Your task to perform on an android device: Search for vegetarian restaurants on Maps Image 0: 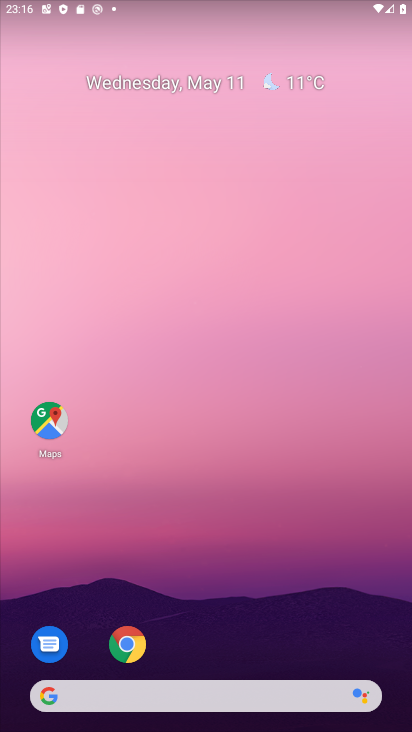
Step 0: press home button
Your task to perform on an android device: Search for vegetarian restaurants on Maps Image 1: 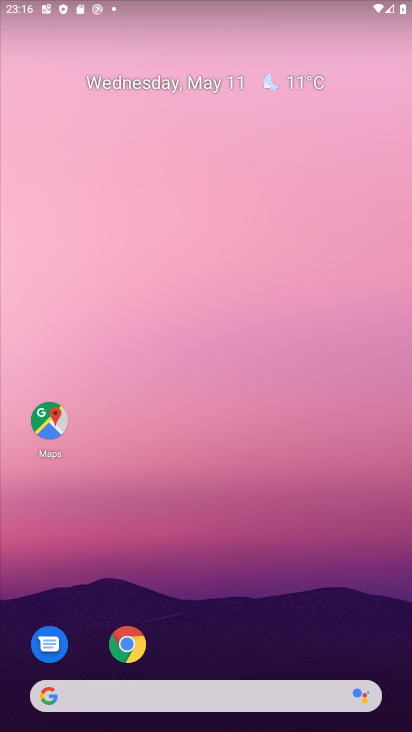
Step 1: drag from (220, 660) to (218, 138)
Your task to perform on an android device: Search for vegetarian restaurants on Maps Image 2: 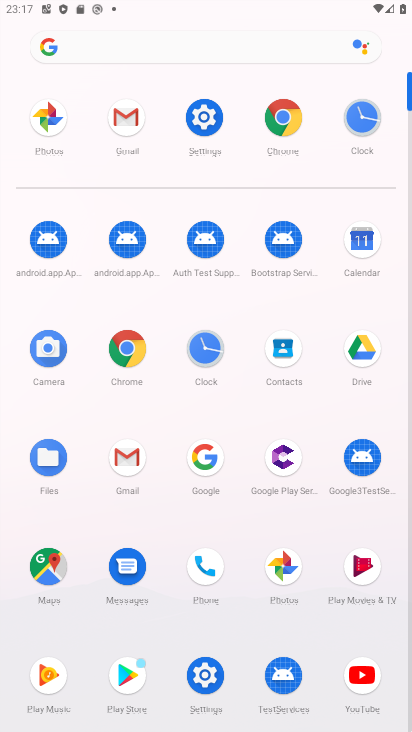
Step 2: click (50, 559)
Your task to perform on an android device: Search for vegetarian restaurants on Maps Image 3: 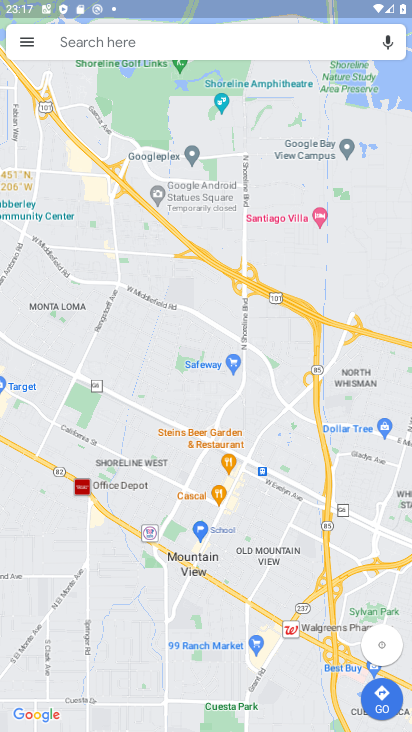
Step 3: click (101, 33)
Your task to perform on an android device: Search for vegetarian restaurants on Maps Image 4: 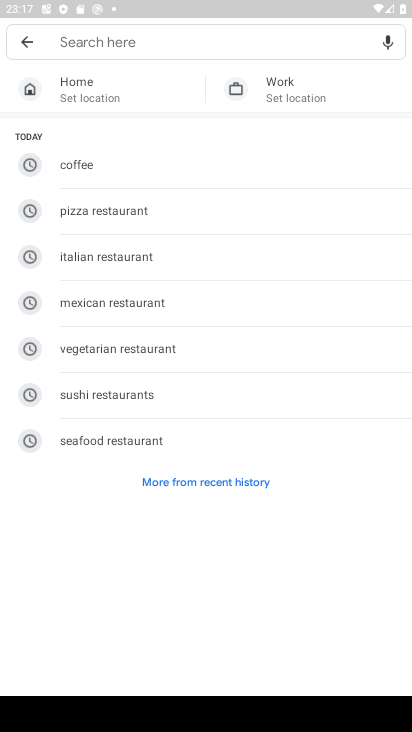
Step 4: click (132, 351)
Your task to perform on an android device: Search for vegetarian restaurants on Maps Image 5: 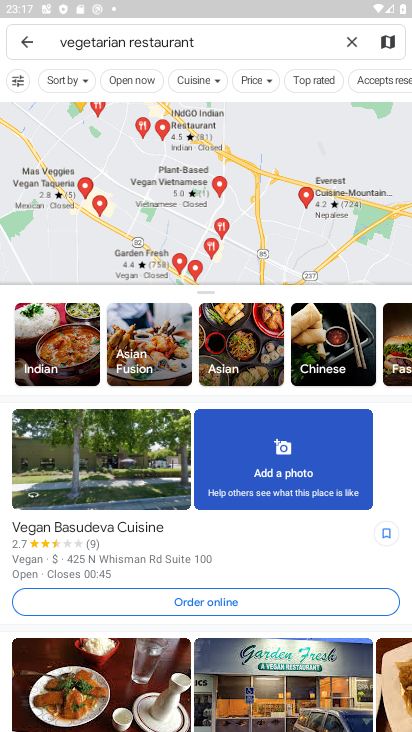
Step 5: task complete